Your task to perform on an android device: Do I have any events tomorrow? Image 0: 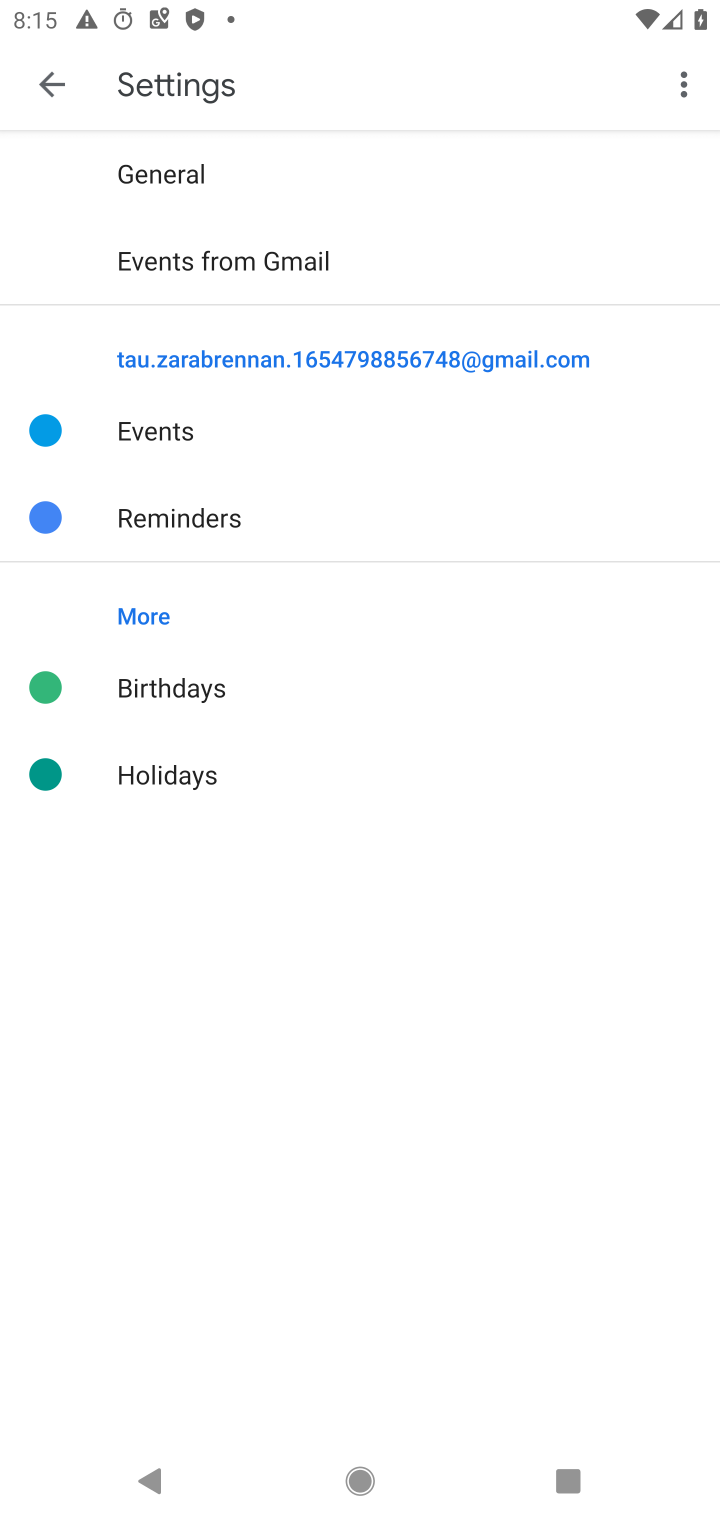
Step 0: click (46, 104)
Your task to perform on an android device: Do I have any events tomorrow? Image 1: 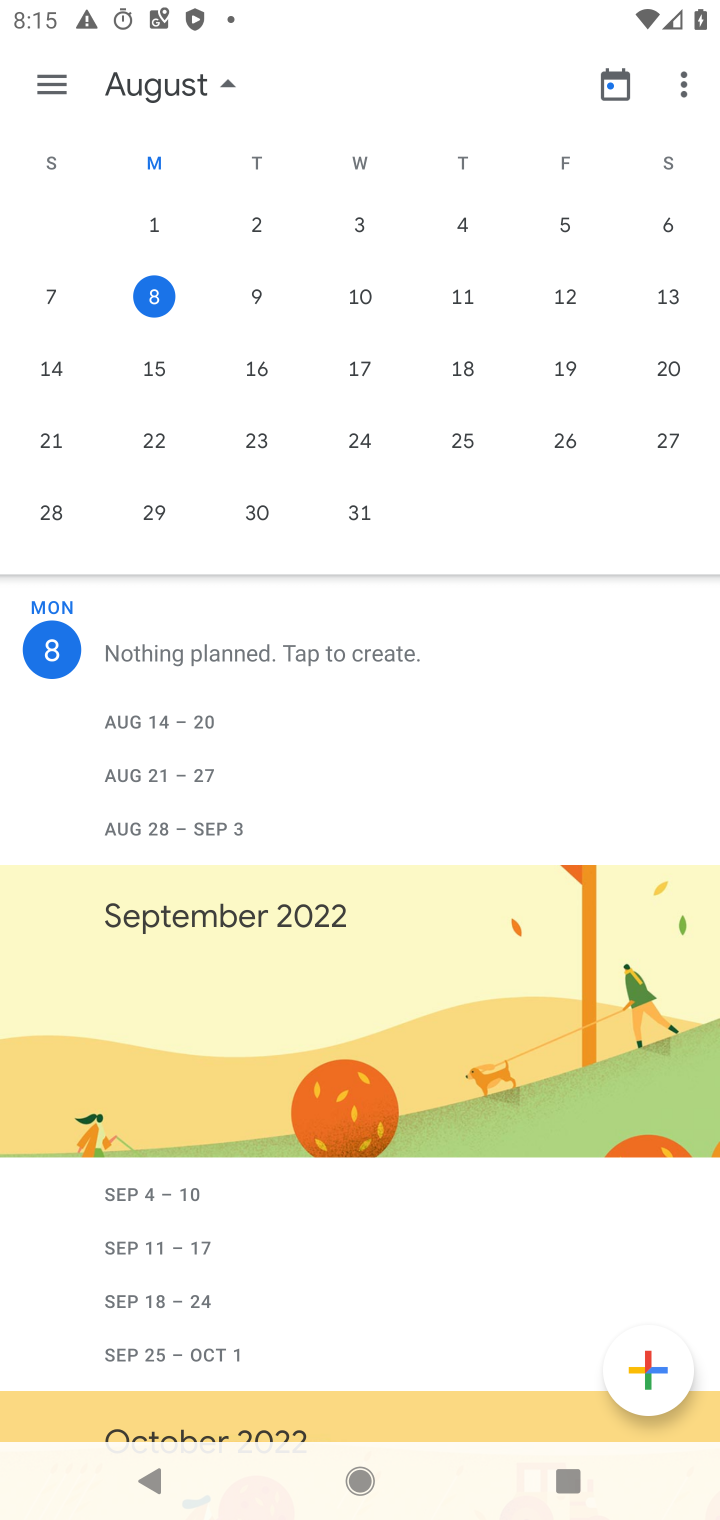
Step 1: click (259, 291)
Your task to perform on an android device: Do I have any events tomorrow? Image 2: 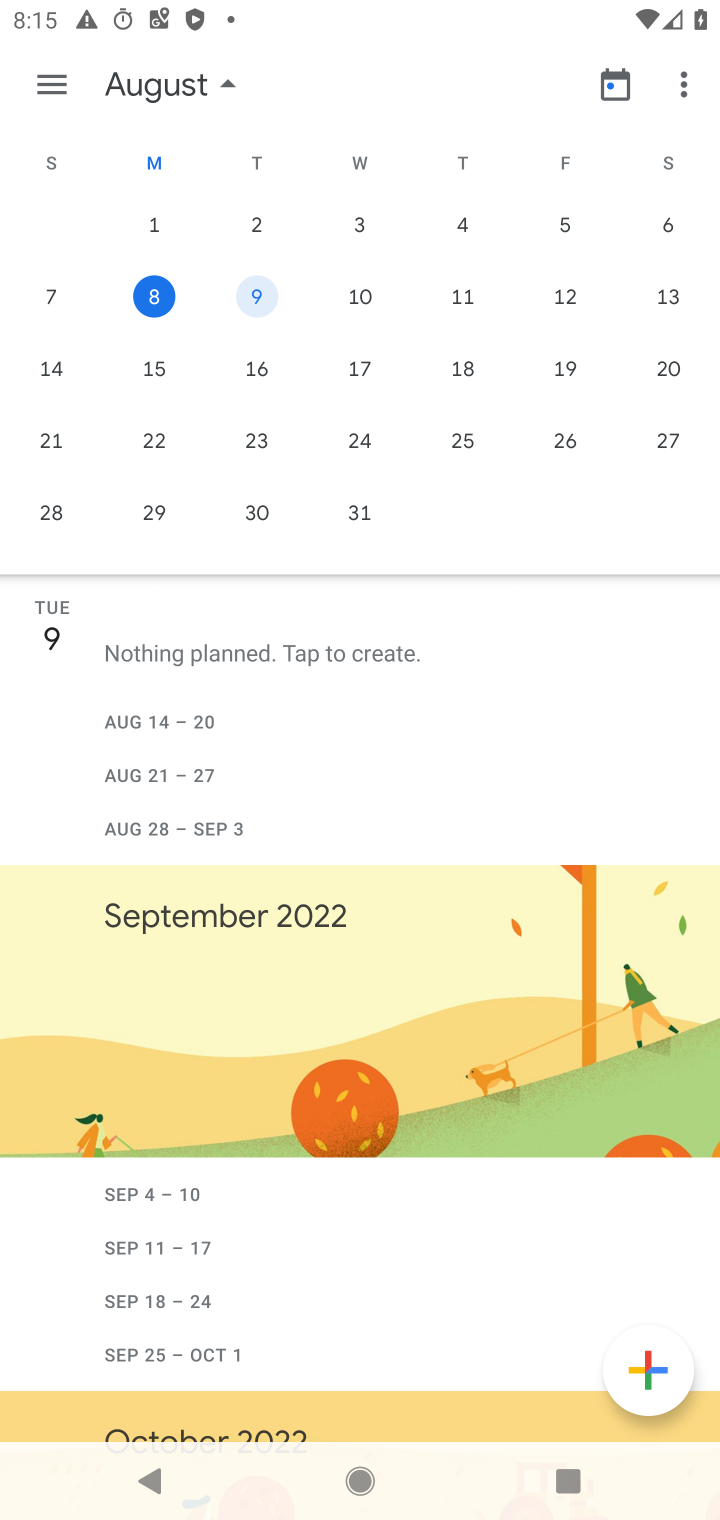
Step 2: task complete